Your task to perform on an android device: find which apps use the phone's location Image 0: 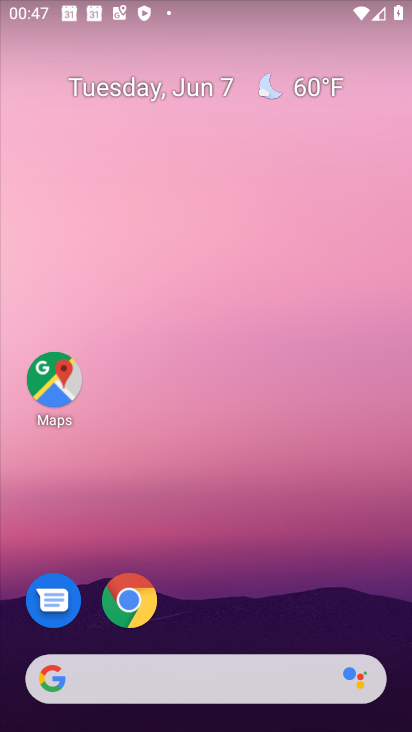
Step 0: drag from (216, 719) to (197, 152)
Your task to perform on an android device: find which apps use the phone's location Image 1: 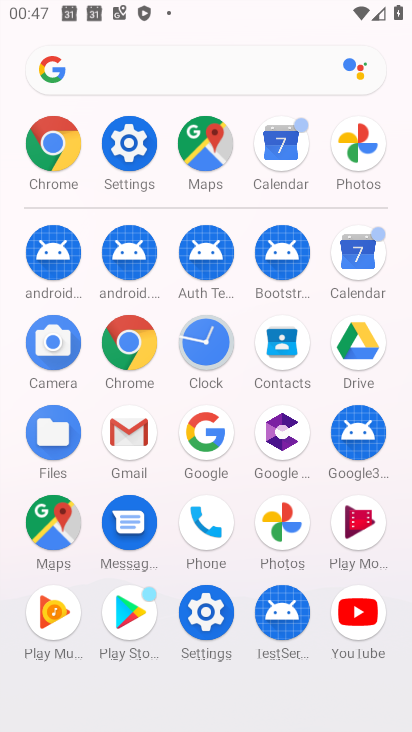
Step 1: click (211, 616)
Your task to perform on an android device: find which apps use the phone's location Image 2: 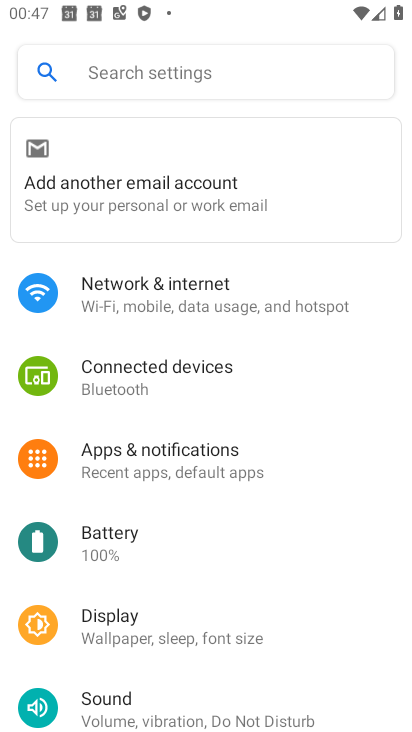
Step 2: drag from (164, 684) to (164, 325)
Your task to perform on an android device: find which apps use the phone's location Image 3: 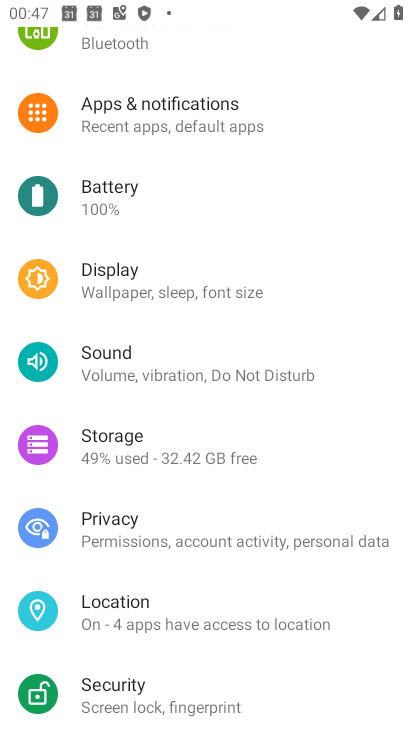
Step 3: click (126, 613)
Your task to perform on an android device: find which apps use the phone's location Image 4: 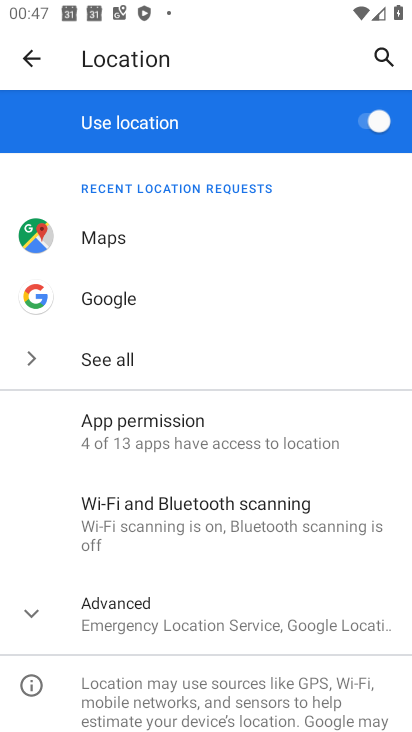
Step 4: click (127, 424)
Your task to perform on an android device: find which apps use the phone's location Image 5: 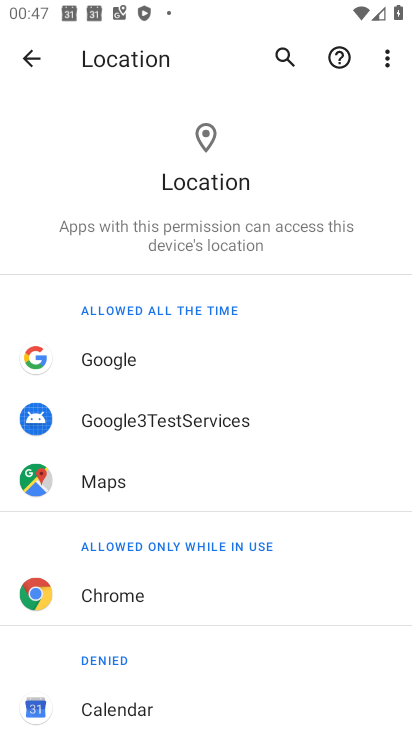
Step 5: task complete